Your task to perform on an android device: manage bookmarks in the chrome app Image 0: 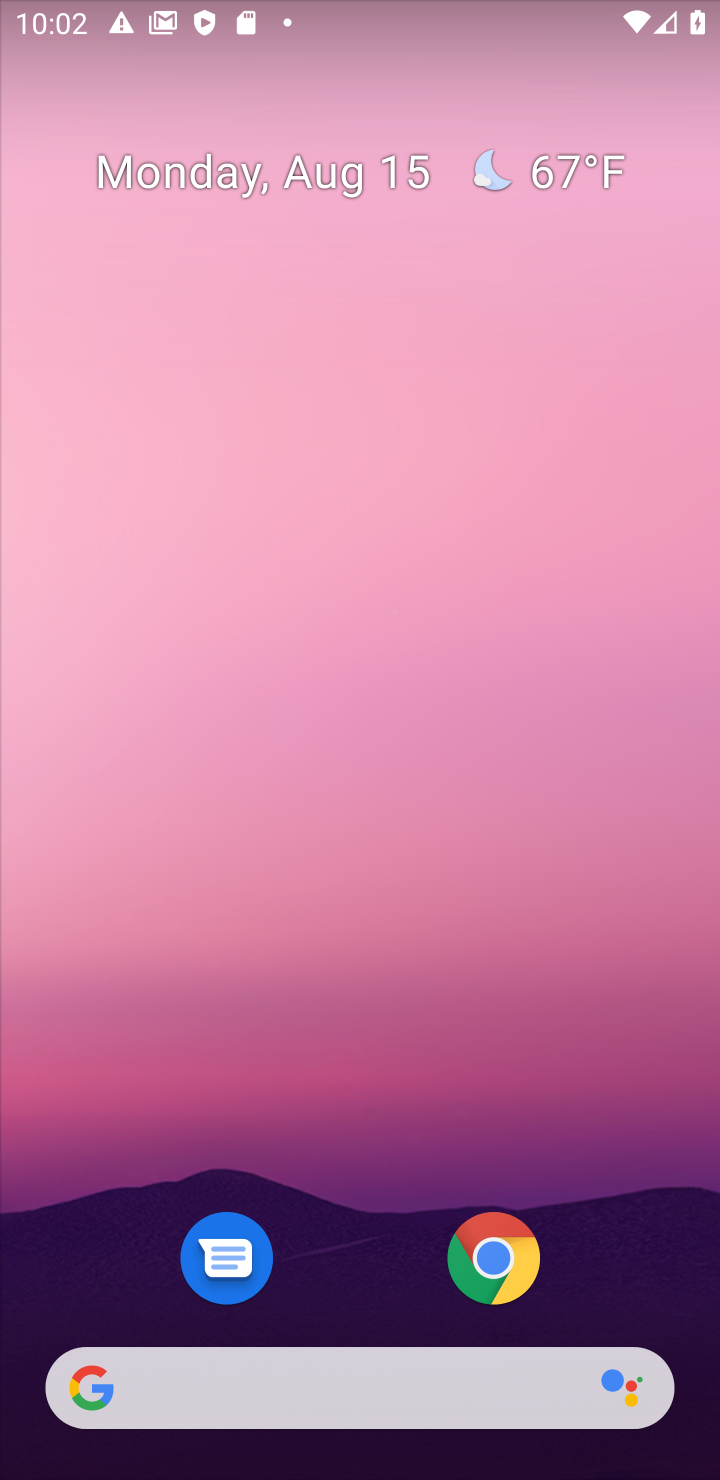
Step 0: click (524, 1280)
Your task to perform on an android device: manage bookmarks in the chrome app Image 1: 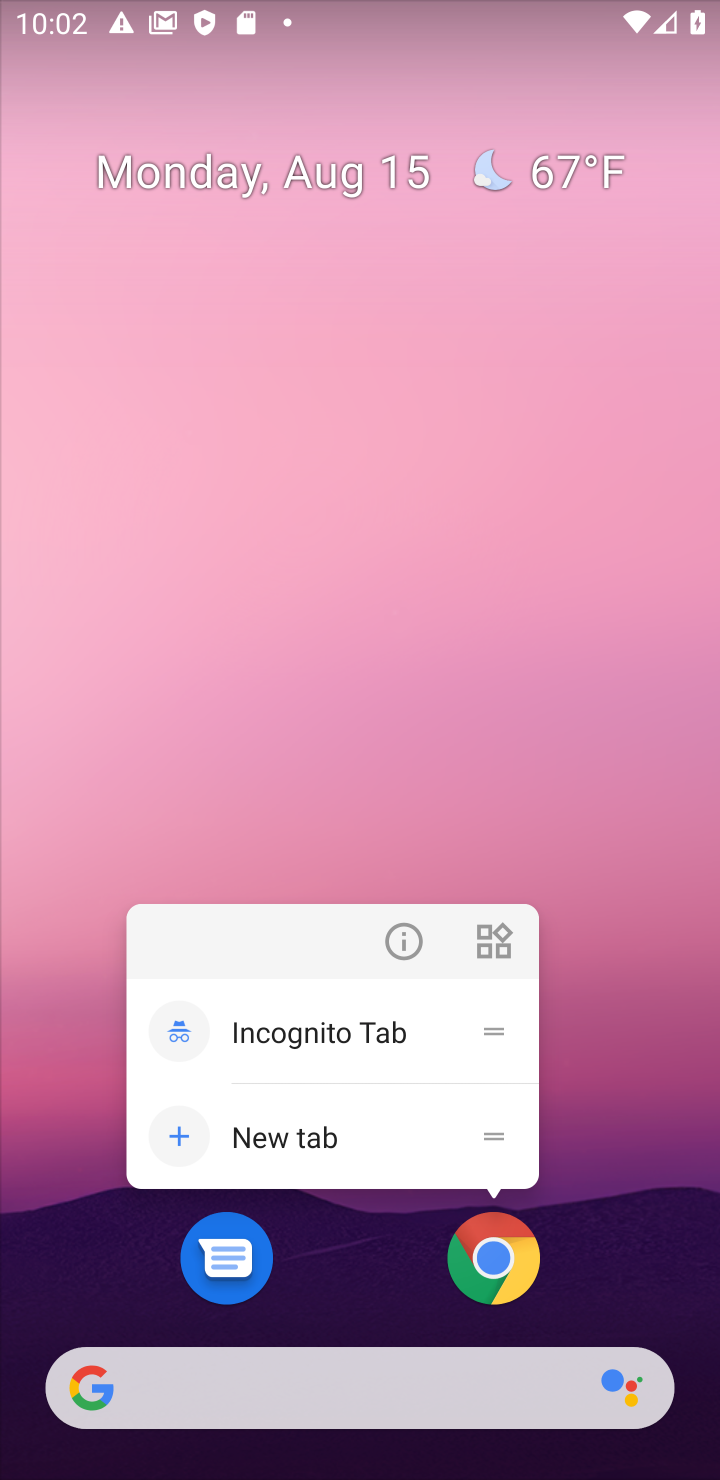
Step 1: click (493, 1283)
Your task to perform on an android device: manage bookmarks in the chrome app Image 2: 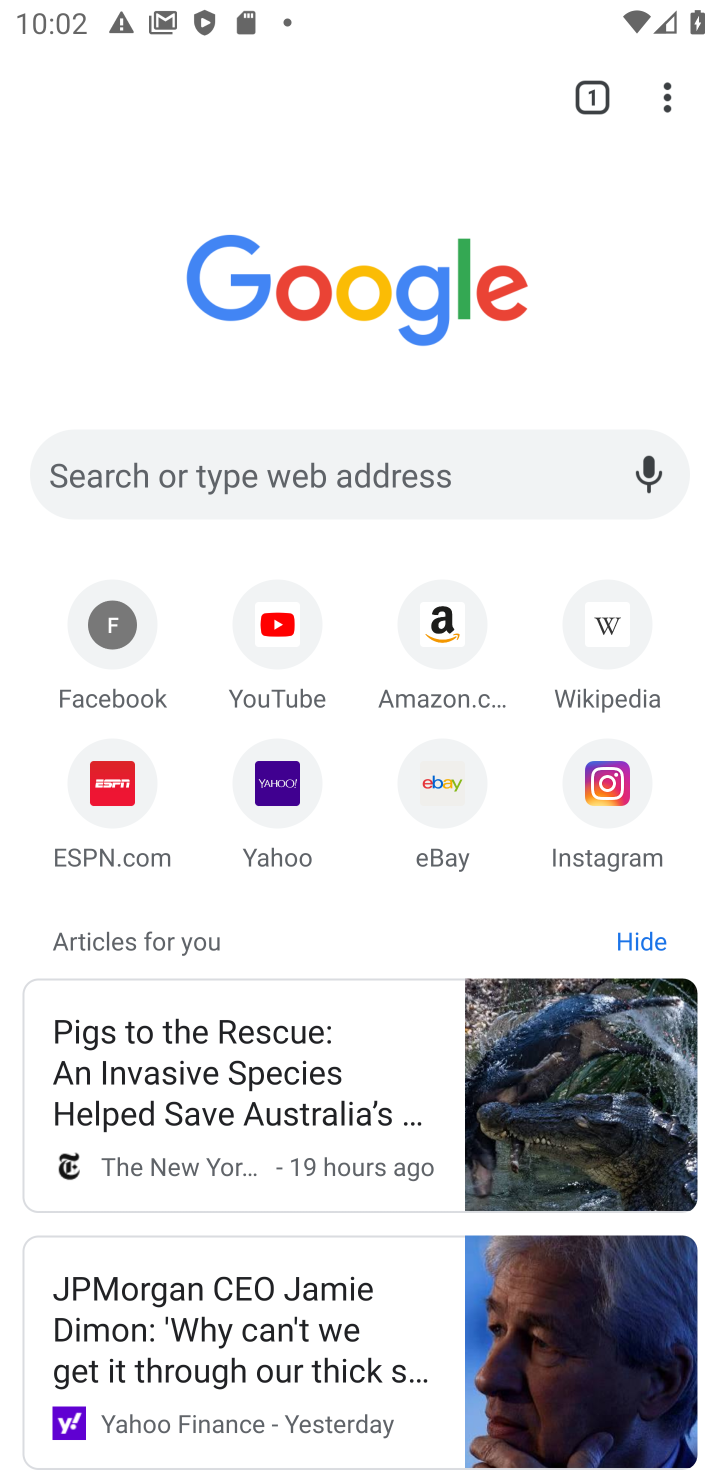
Step 2: click (654, 92)
Your task to perform on an android device: manage bookmarks in the chrome app Image 3: 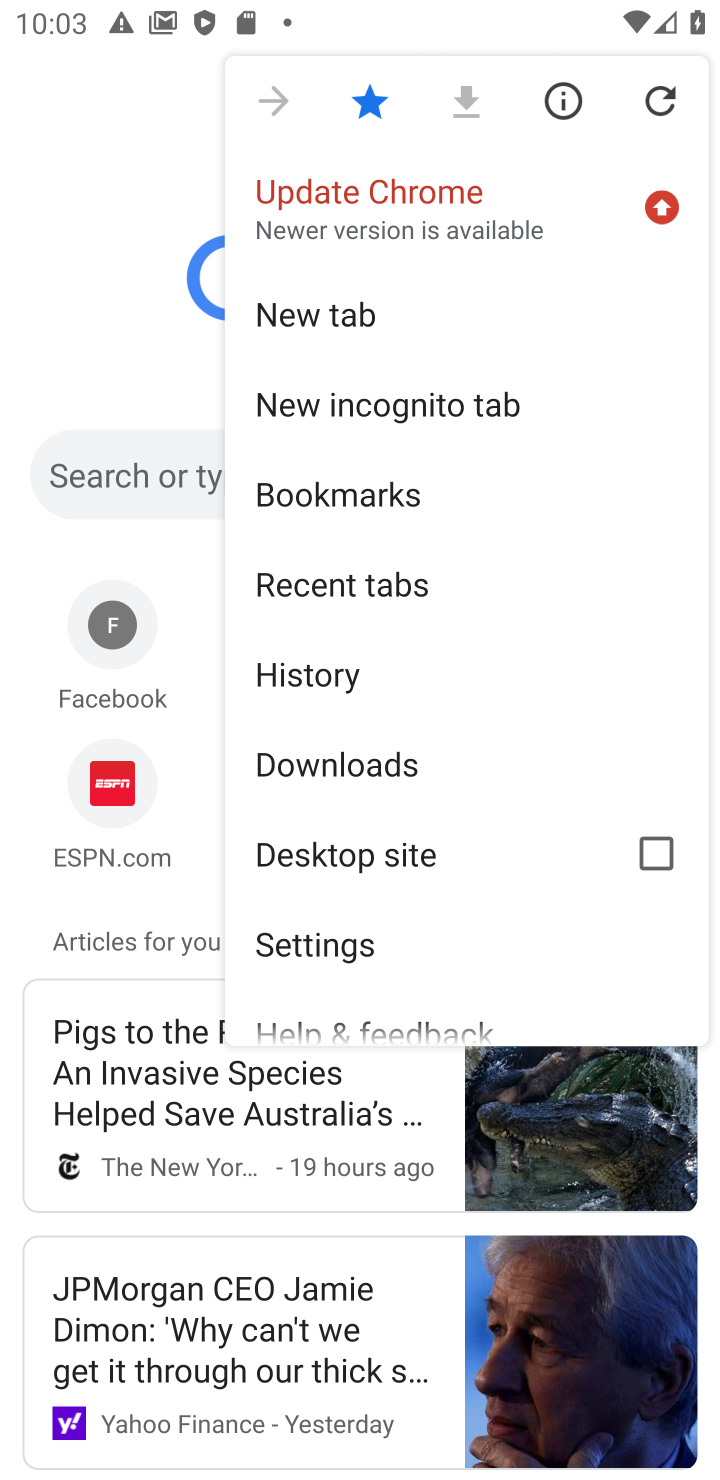
Step 3: click (325, 503)
Your task to perform on an android device: manage bookmarks in the chrome app Image 4: 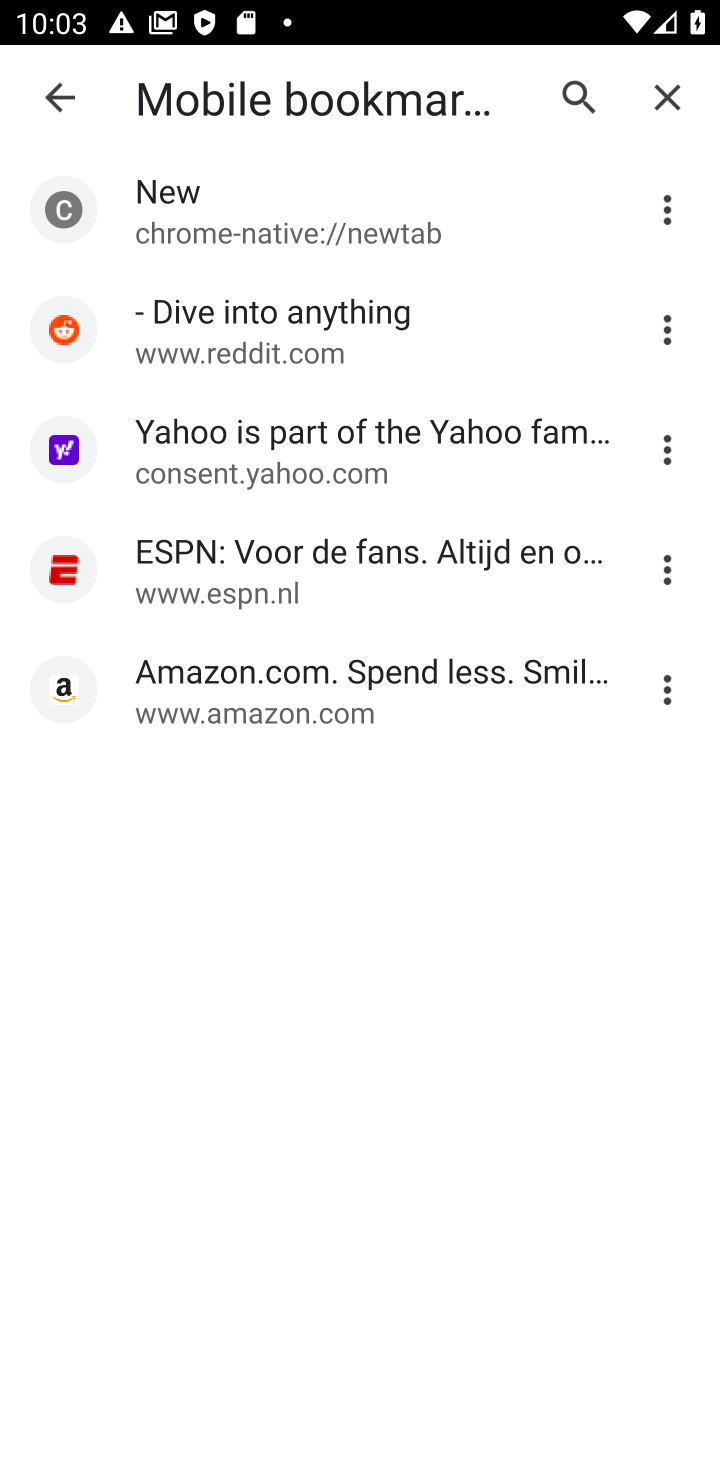
Step 4: click (673, 451)
Your task to perform on an android device: manage bookmarks in the chrome app Image 5: 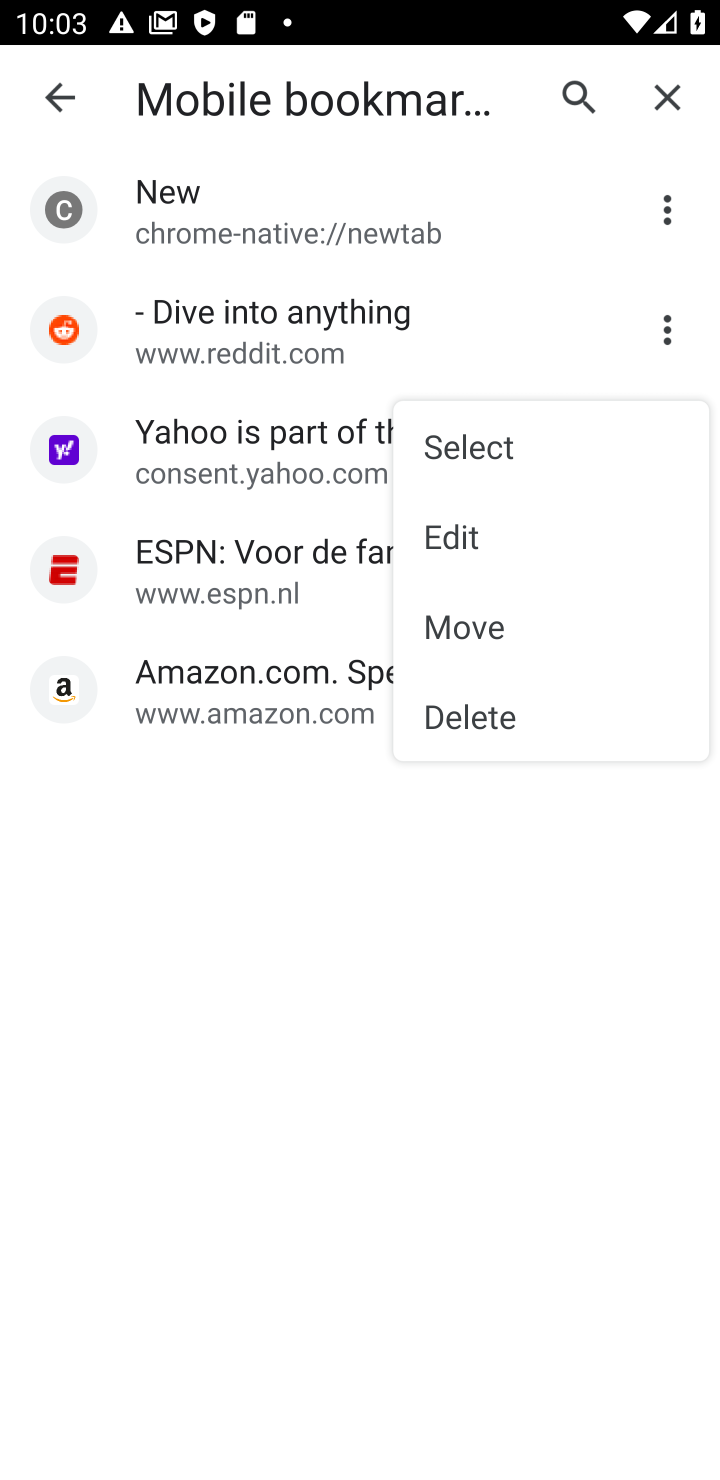
Step 5: click (524, 449)
Your task to perform on an android device: manage bookmarks in the chrome app Image 6: 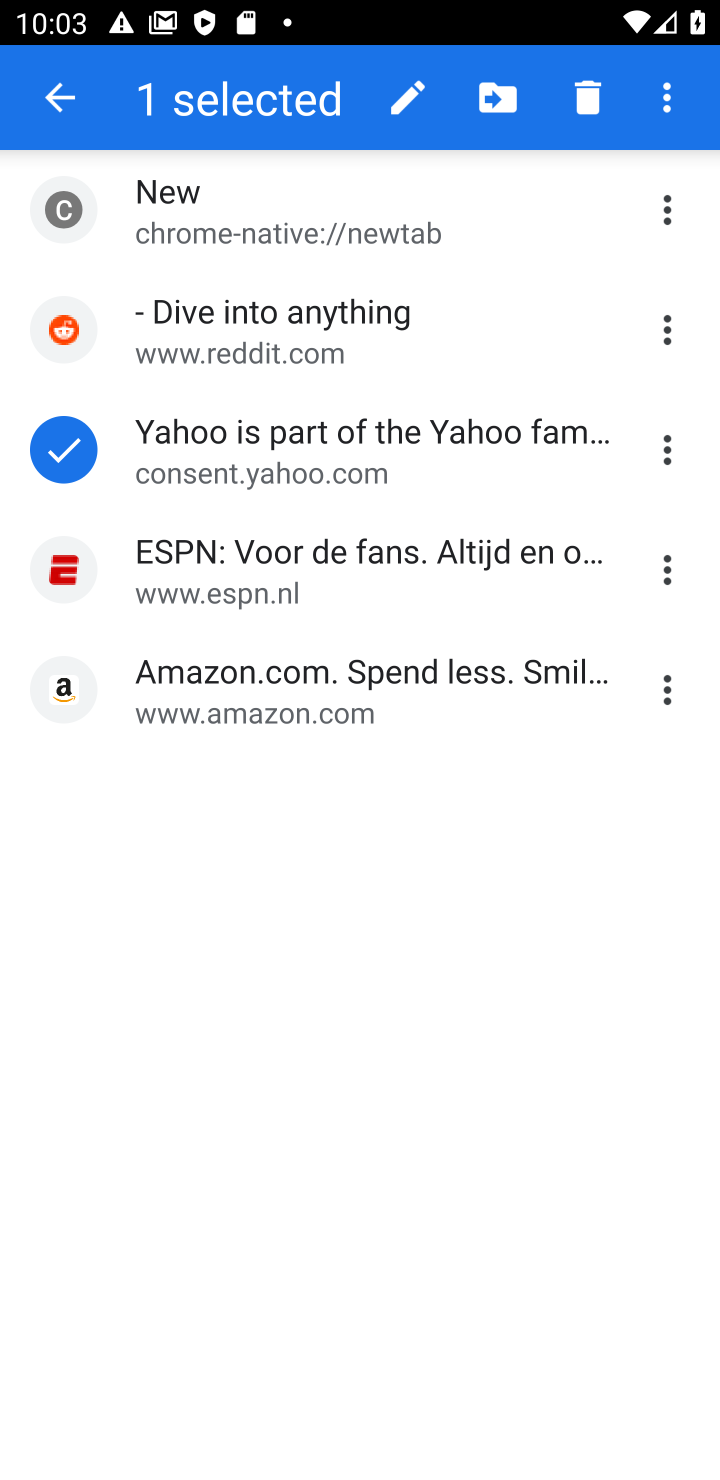
Step 6: click (263, 580)
Your task to perform on an android device: manage bookmarks in the chrome app Image 7: 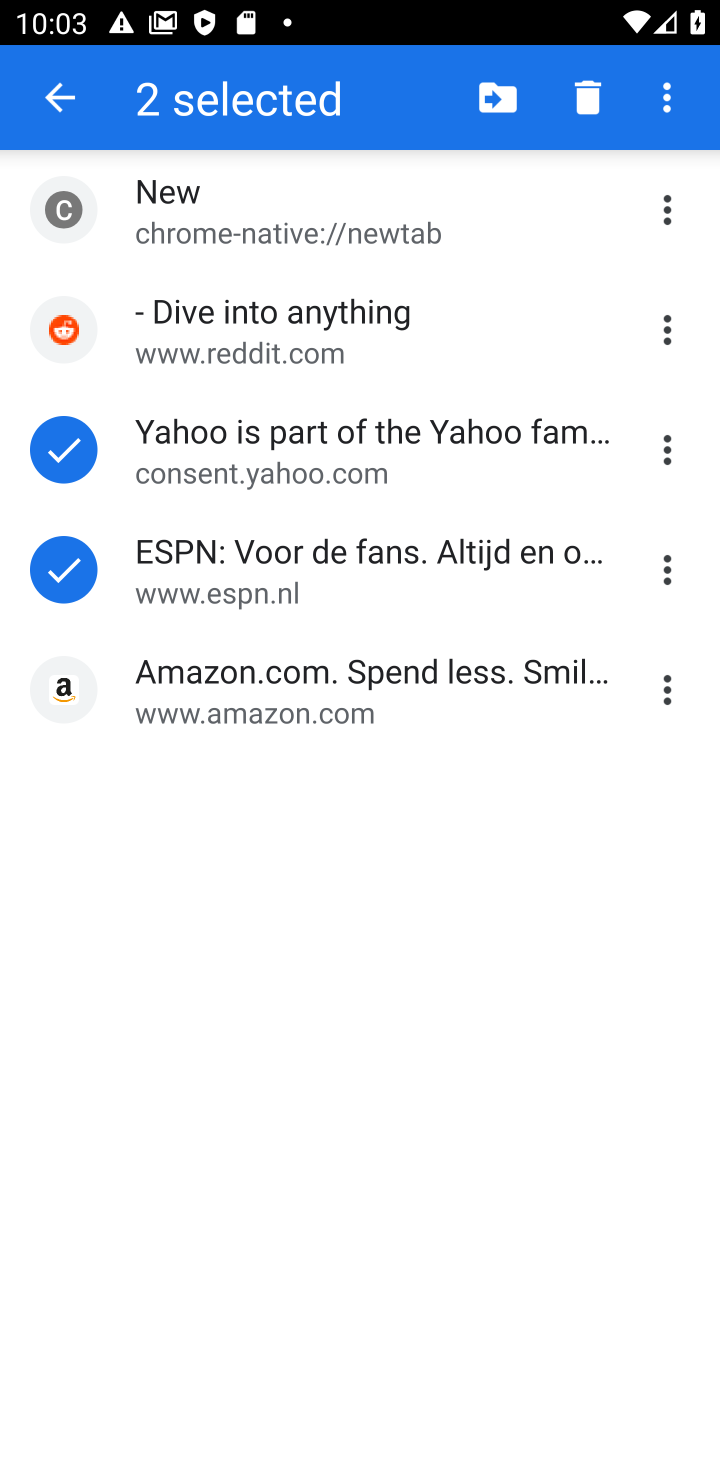
Step 7: click (253, 706)
Your task to perform on an android device: manage bookmarks in the chrome app Image 8: 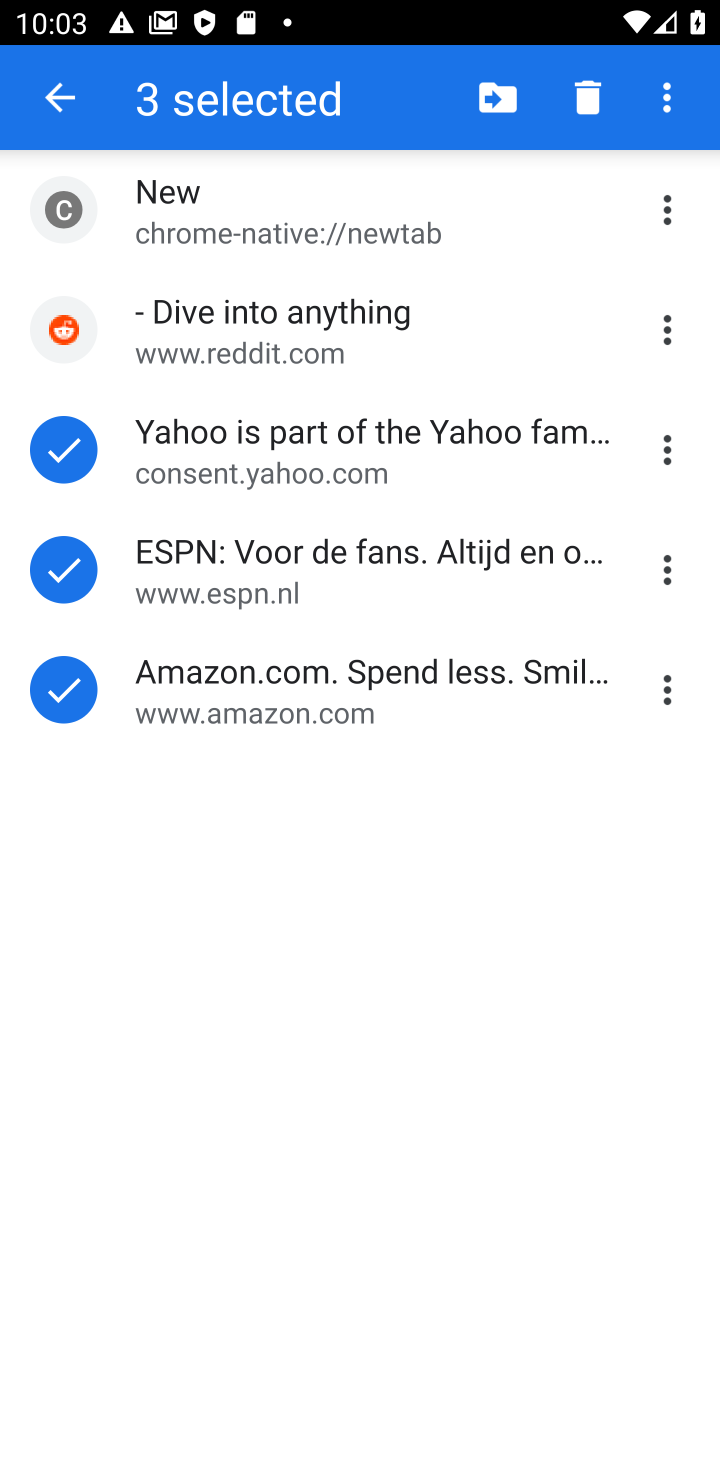
Step 8: click (488, 98)
Your task to perform on an android device: manage bookmarks in the chrome app Image 9: 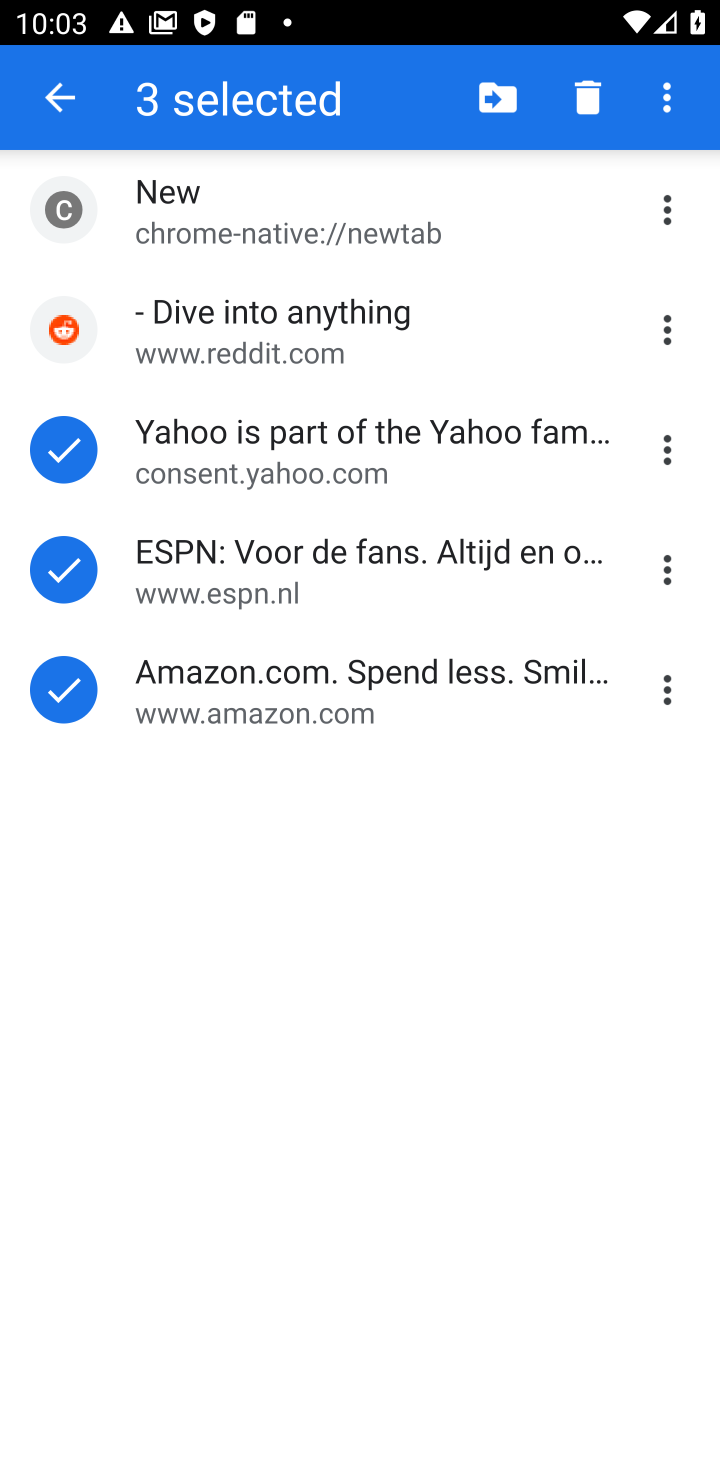
Step 9: click (490, 114)
Your task to perform on an android device: manage bookmarks in the chrome app Image 10: 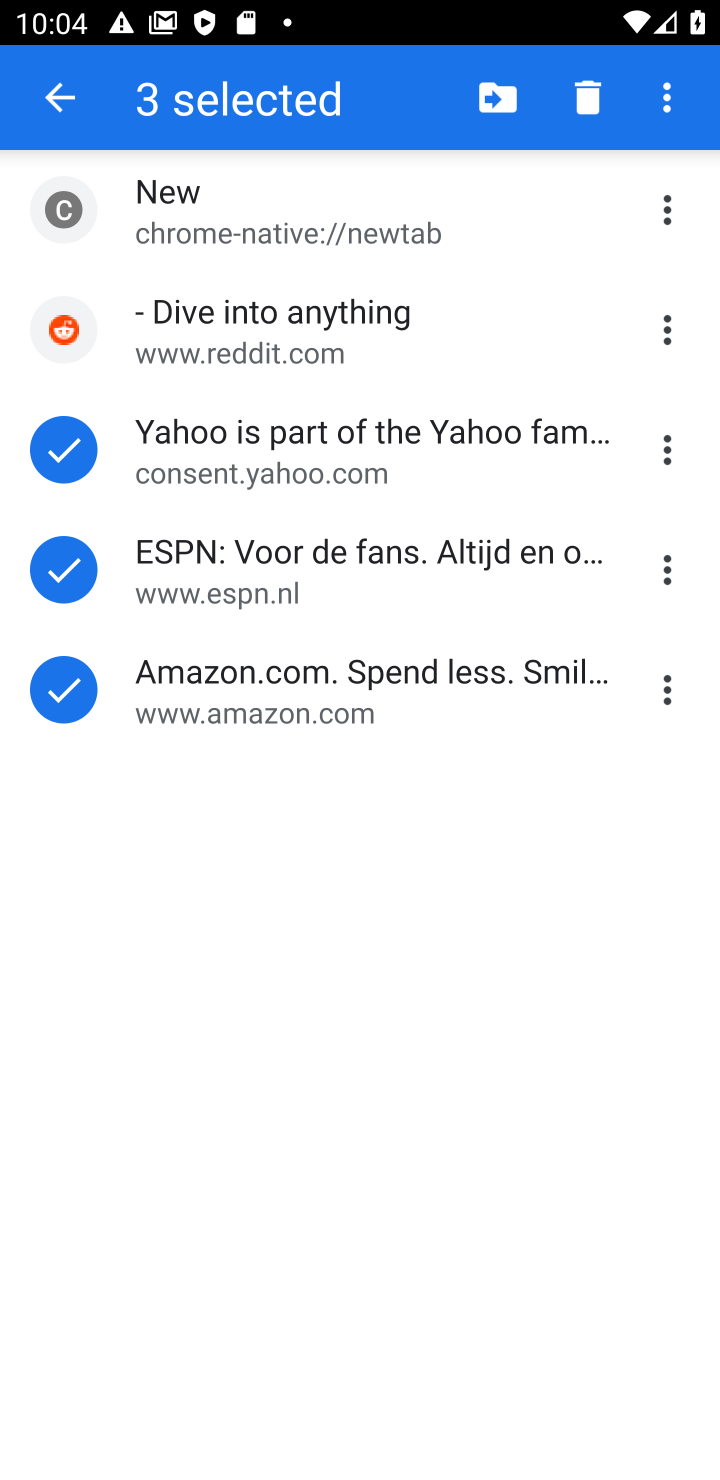
Step 10: click (475, 110)
Your task to perform on an android device: manage bookmarks in the chrome app Image 11: 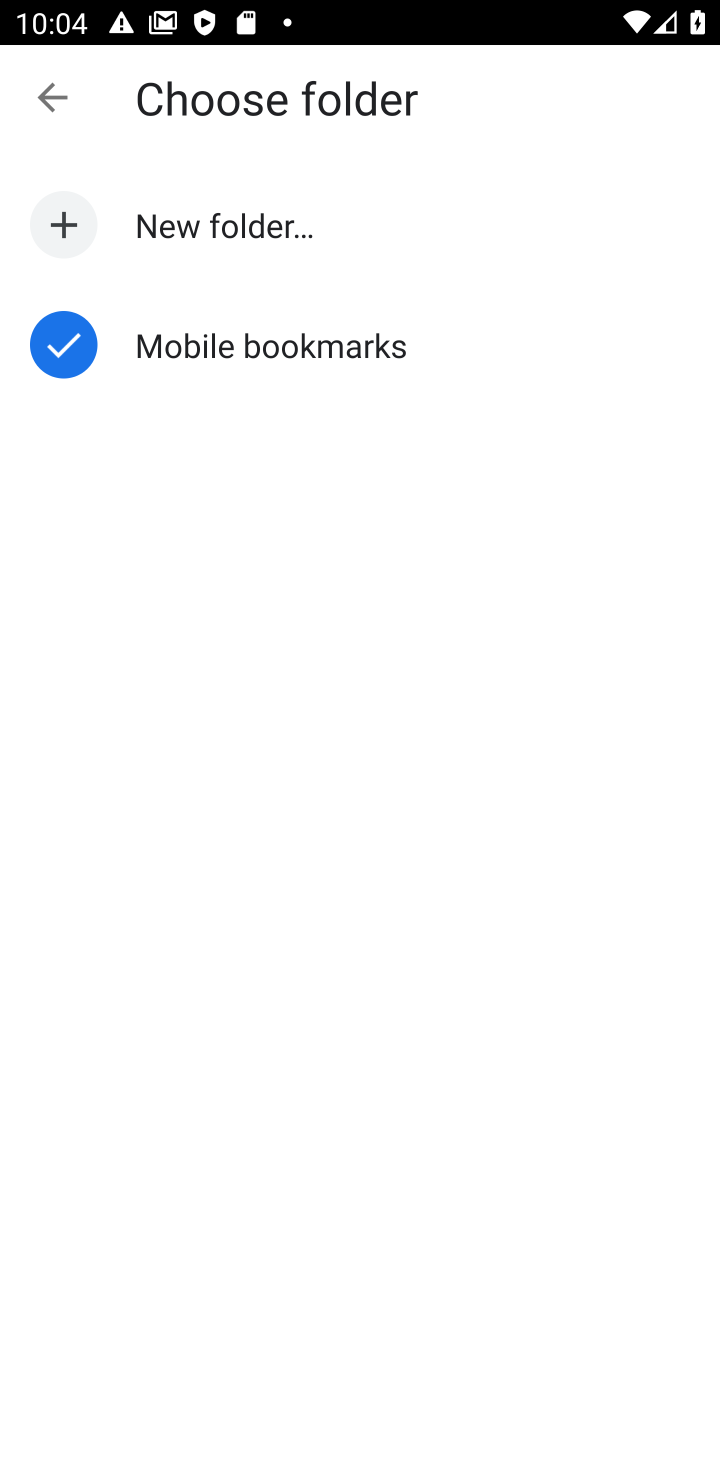
Step 11: click (232, 217)
Your task to perform on an android device: manage bookmarks in the chrome app Image 12: 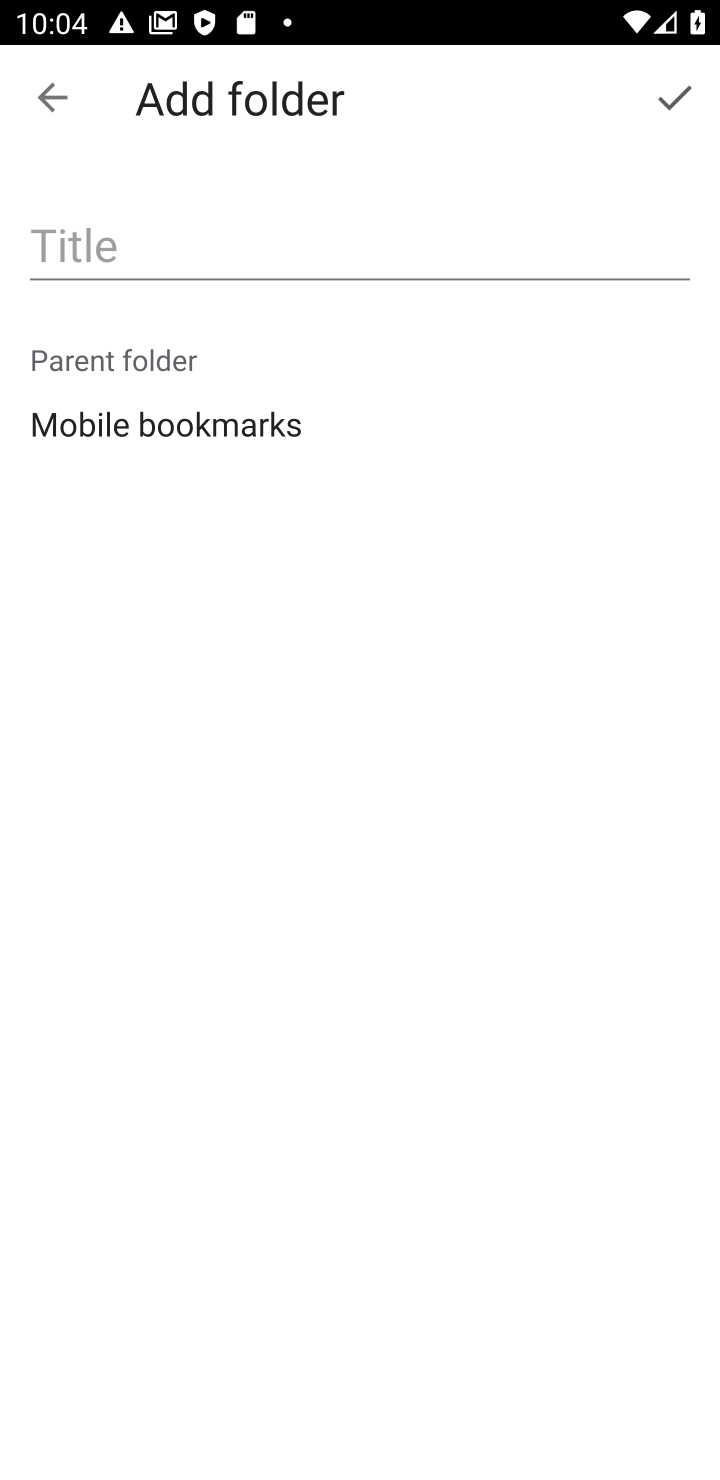
Step 12: click (314, 245)
Your task to perform on an android device: manage bookmarks in the chrome app Image 13: 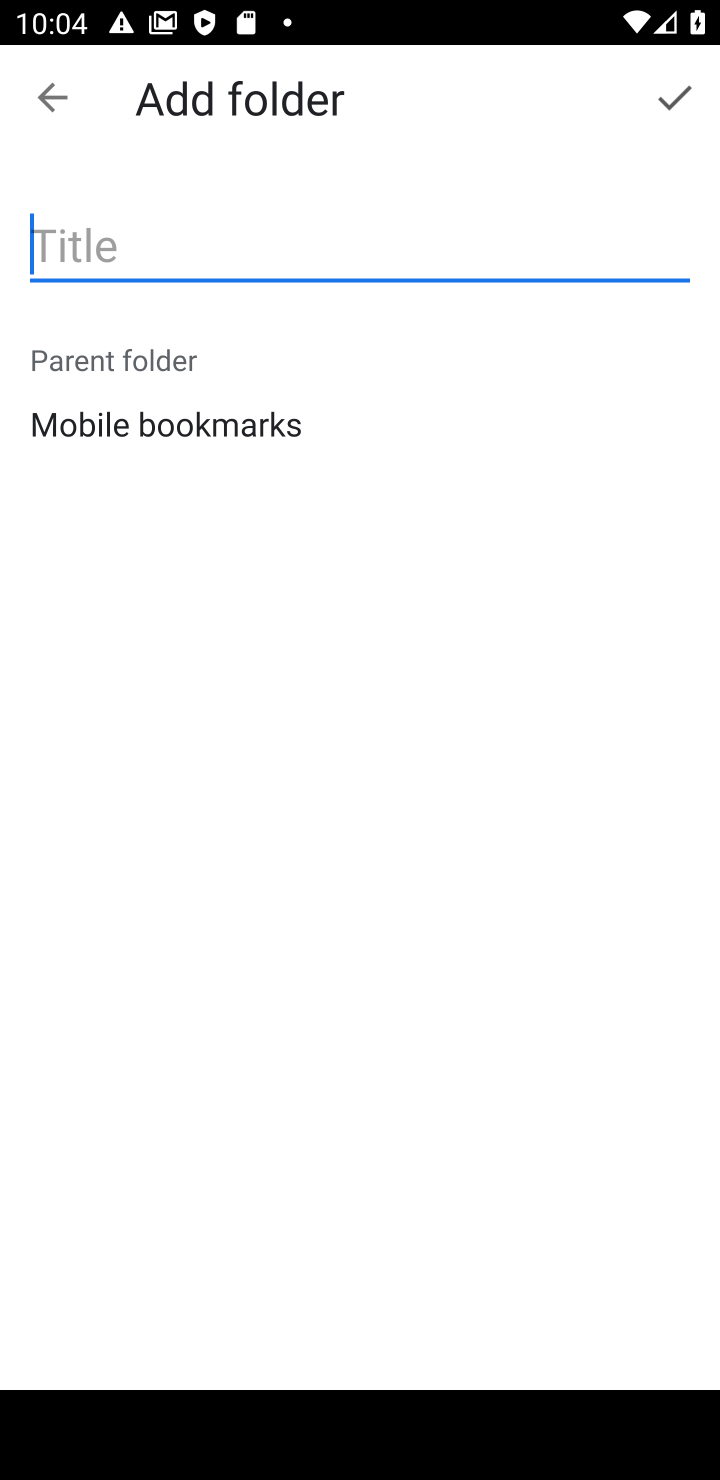
Step 13: type "bull"
Your task to perform on an android device: manage bookmarks in the chrome app Image 14: 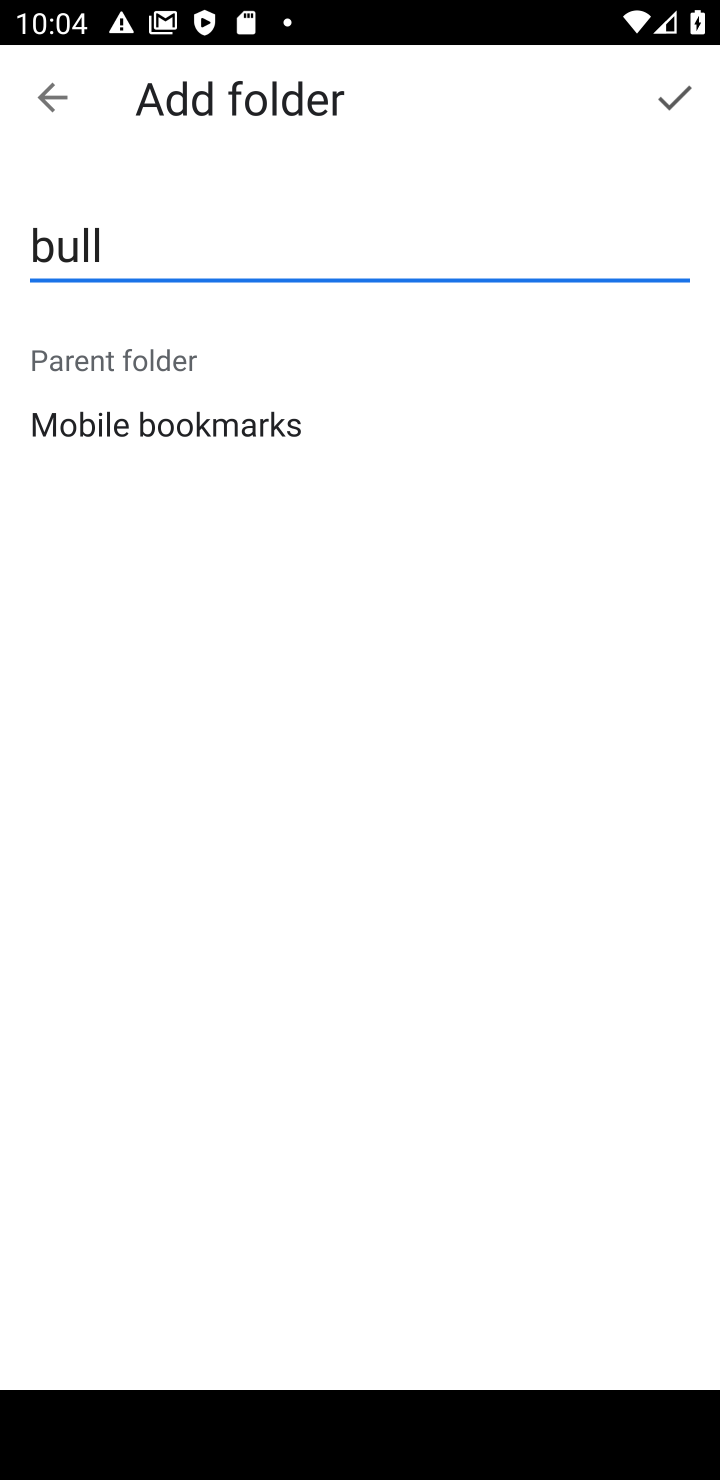
Step 14: click (658, 84)
Your task to perform on an android device: manage bookmarks in the chrome app Image 15: 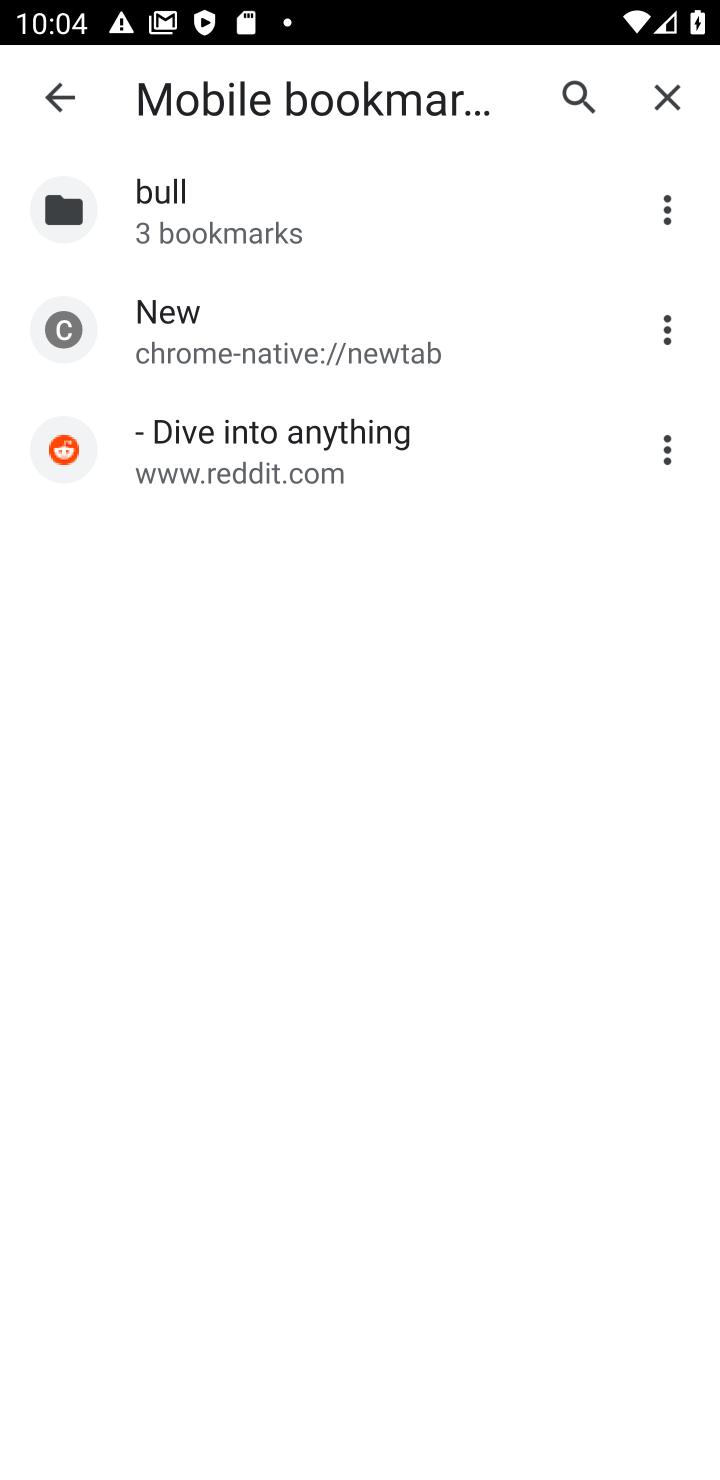
Step 15: task complete